Your task to perform on an android device: open chrome and create a bookmark for the current page Image 0: 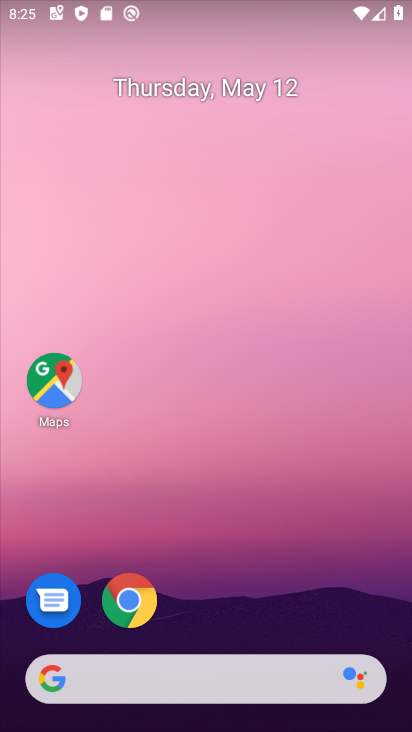
Step 0: click (134, 612)
Your task to perform on an android device: open chrome and create a bookmark for the current page Image 1: 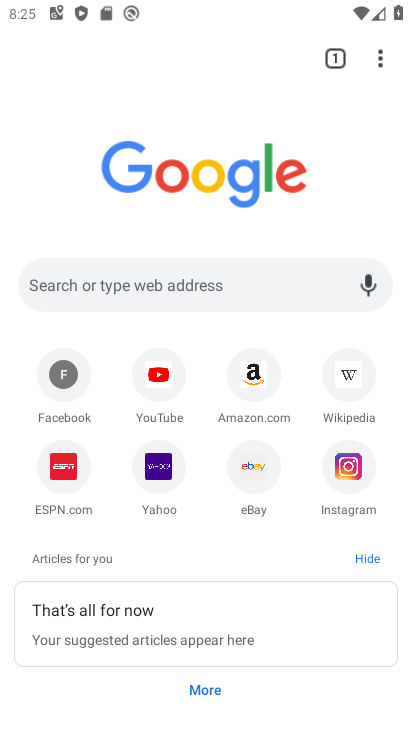
Step 1: click (383, 60)
Your task to perform on an android device: open chrome and create a bookmark for the current page Image 2: 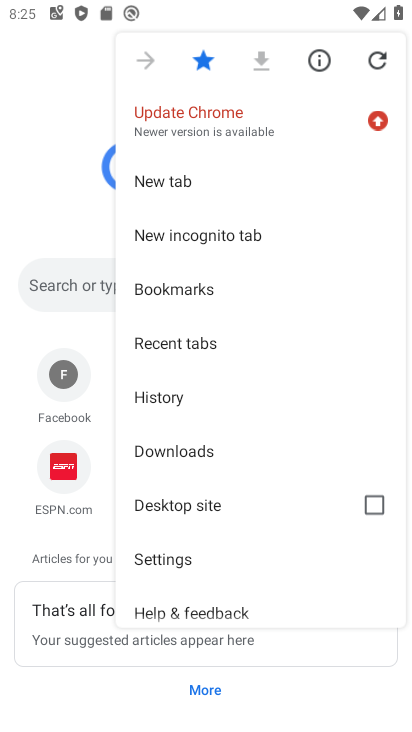
Step 2: task complete